Your task to perform on an android device: move a message to another label in the gmail app Image 0: 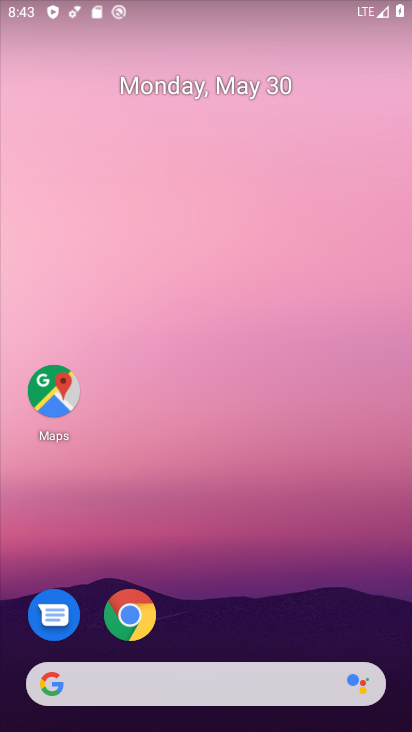
Step 0: drag from (147, 728) to (258, 226)
Your task to perform on an android device: move a message to another label in the gmail app Image 1: 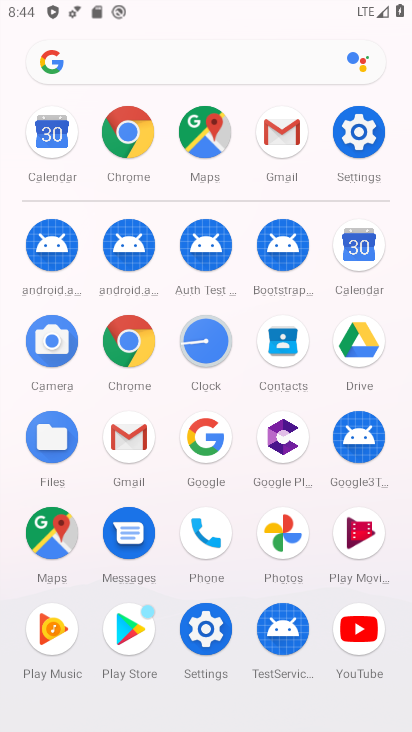
Step 1: click (125, 433)
Your task to perform on an android device: move a message to another label in the gmail app Image 2: 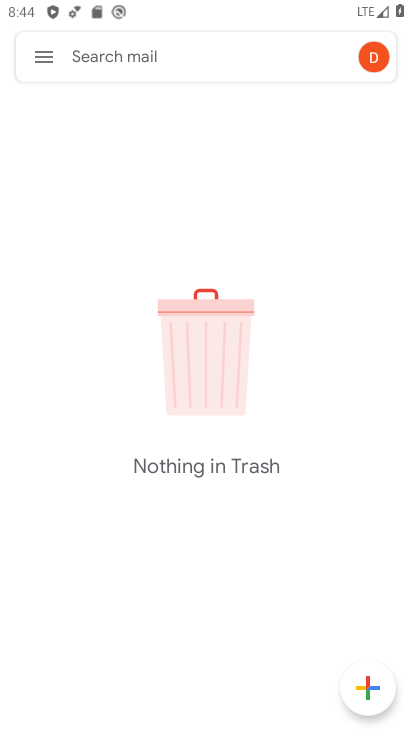
Step 2: click (43, 52)
Your task to perform on an android device: move a message to another label in the gmail app Image 3: 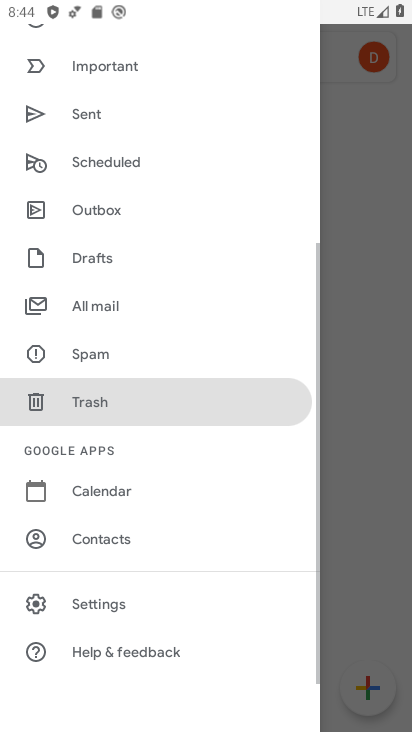
Step 3: drag from (111, 127) to (30, 575)
Your task to perform on an android device: move a message to another label in the gmail app Image 4: 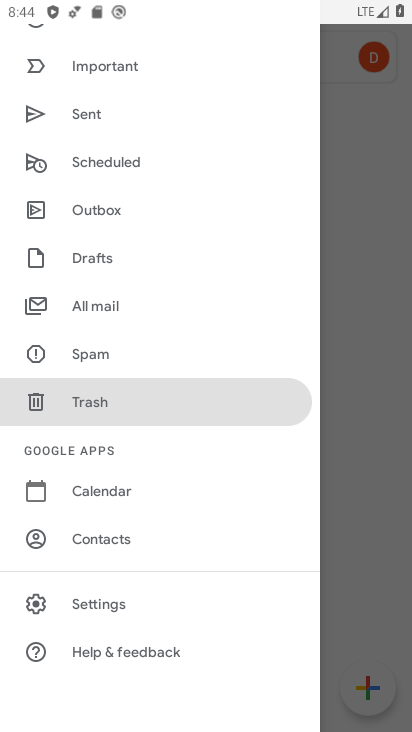
Step 4: drag from (162, 109) to (120, 440)
Your task to perform on an android device: move a message to another label in the gmail app Image 5: 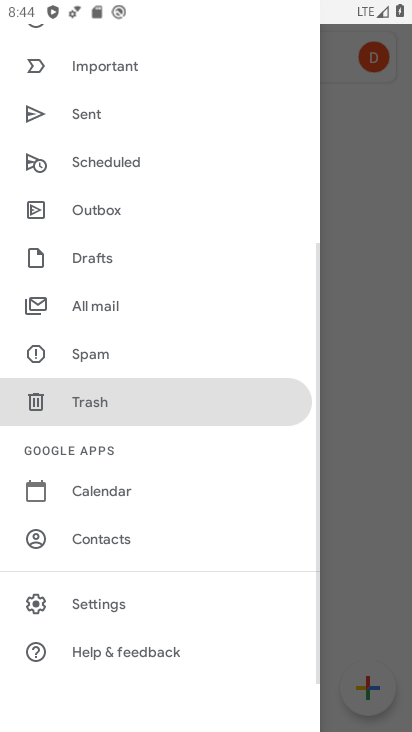
Step 5: click (97, 316)
Your task to perform on an android device: move a message to another label in the gmail app Image 6: 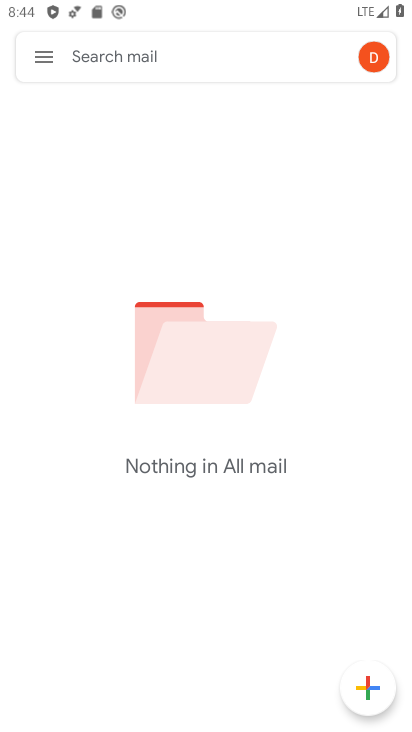
Step 6: click (37, 62)
Your task to perform on an android device: move a message to another label in the gmail app Image 7: 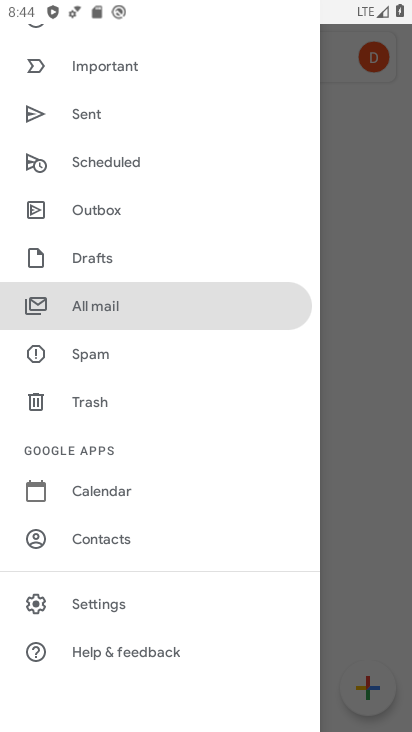
Step 7: task complete